Your task to perform on an android device: uninstall "Venmo" Image 0: 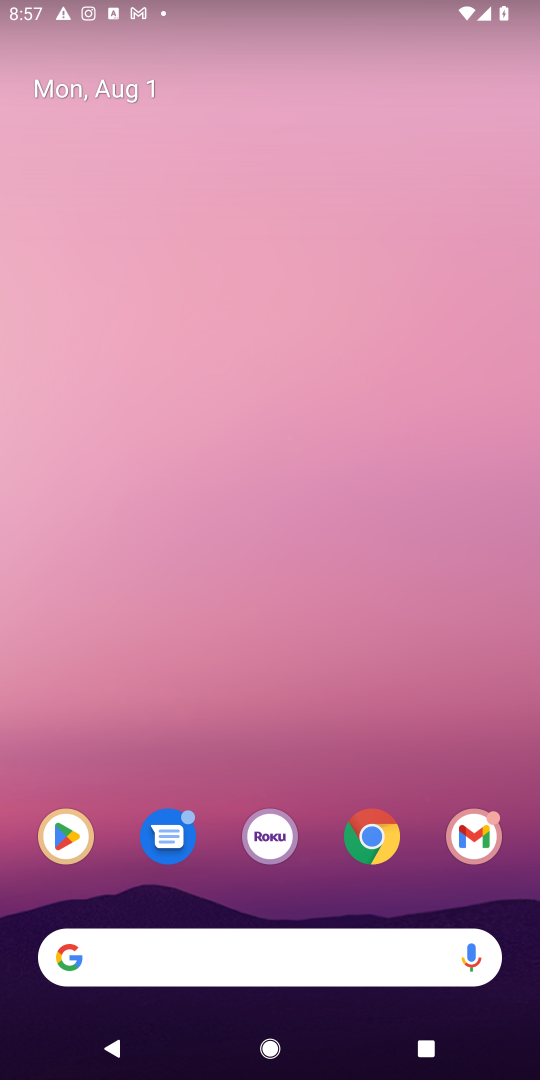
Step 0: click (63, 832)
Your task to perform on an android device: uninstall "Venmo" Image 1: 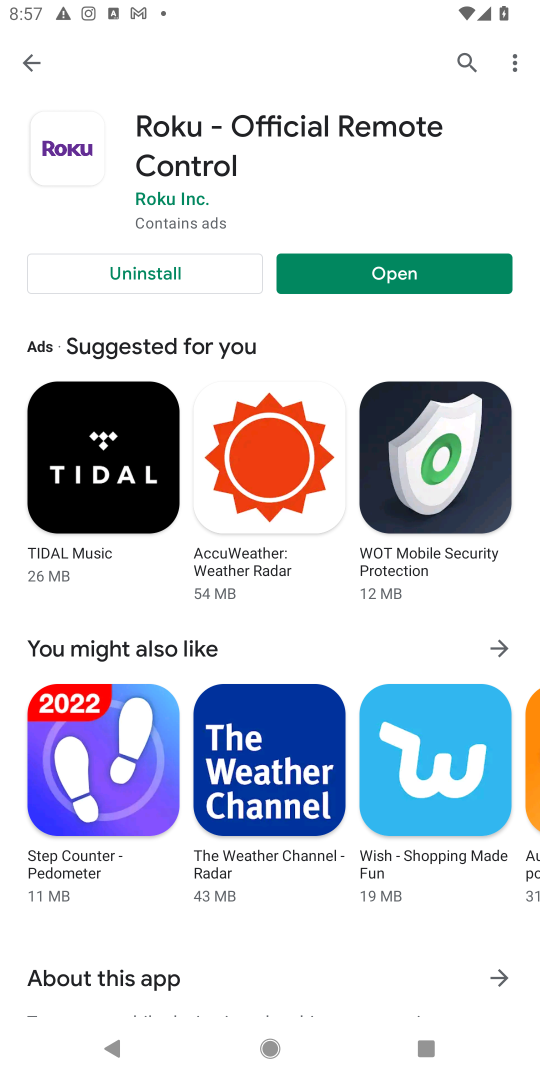
Step 1: click (464, 58)
Your task to perform on an android device: uninstall "Venmo" Image 2: 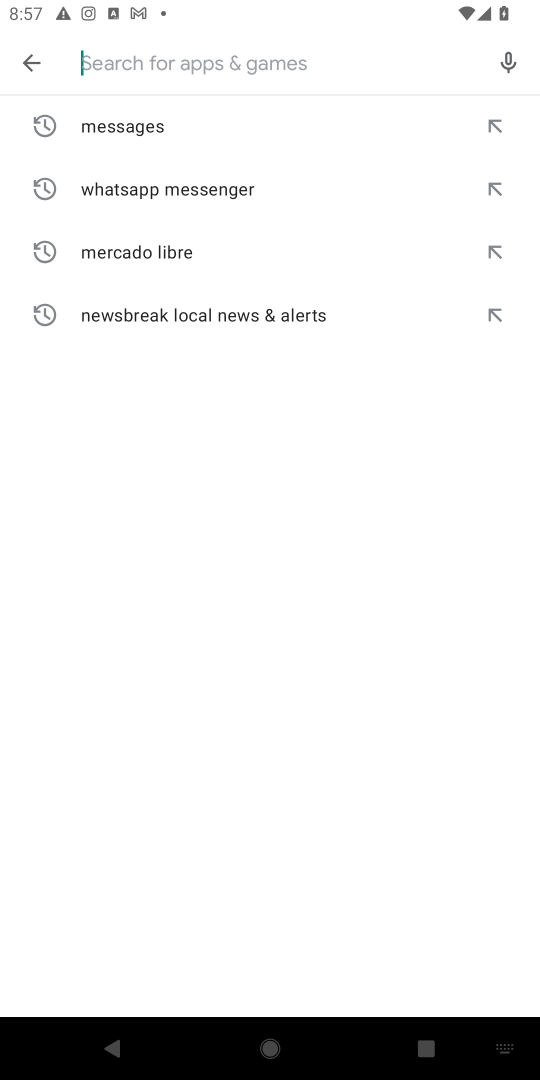
Step 2: type "Venmo"
Your task to perform on an android device: uninstall "Venmo" Image 3: 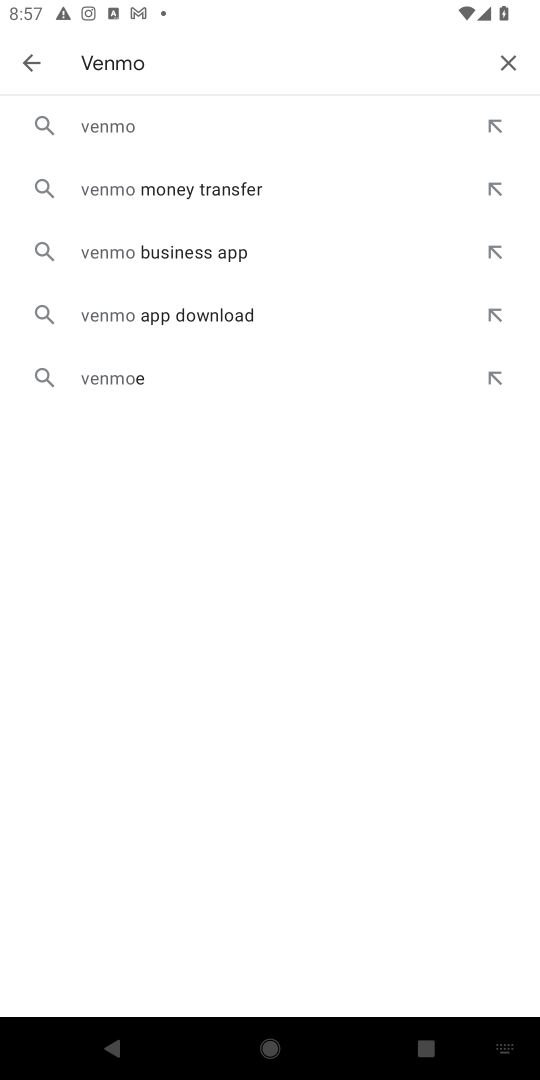
Step 3: click (144, 123)
Your task to perform on an android device: uninstall "Venmo" Image 4: 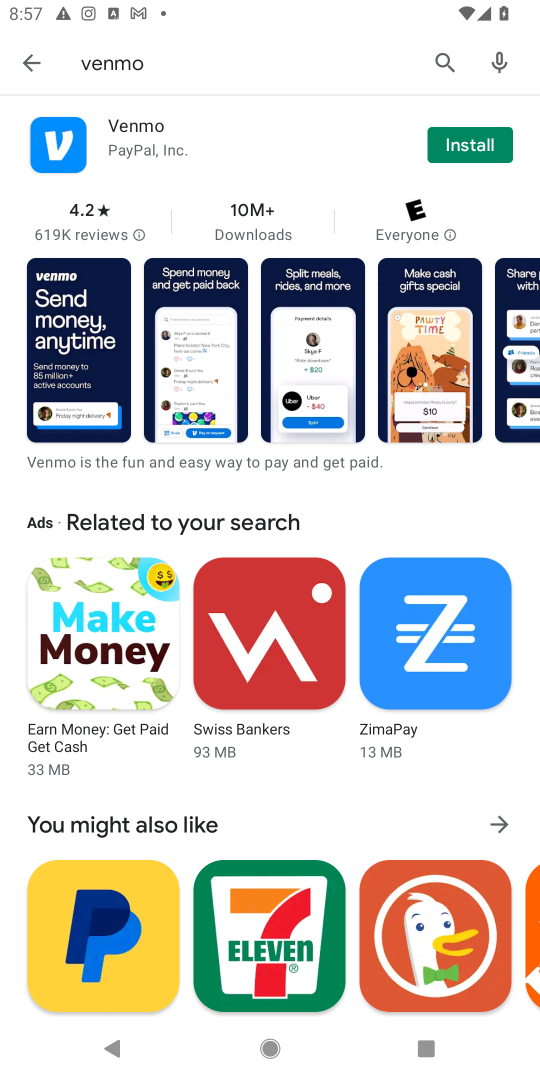
Step 4: task complete